Your task to perform on an android device: Open Google Image 0: 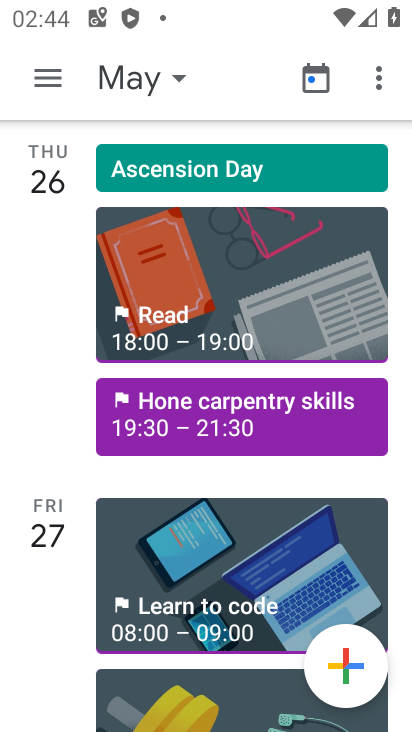
Step 0: press home button
Your task to perform on an android device: Open Google Image 1: 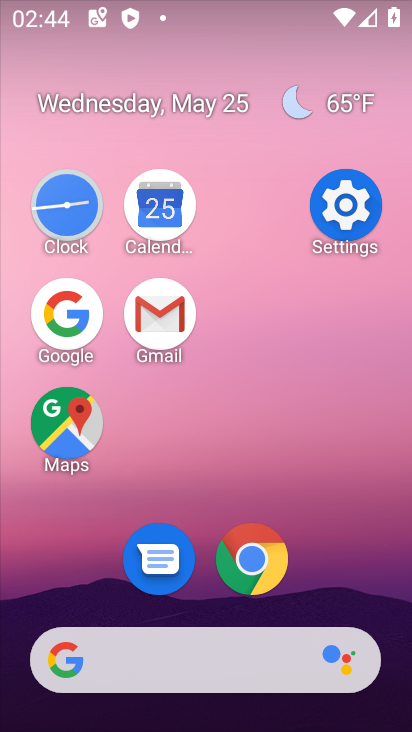
Step 1: click (83, 321)
Your task to perform on an android device: Open Google Image 2: 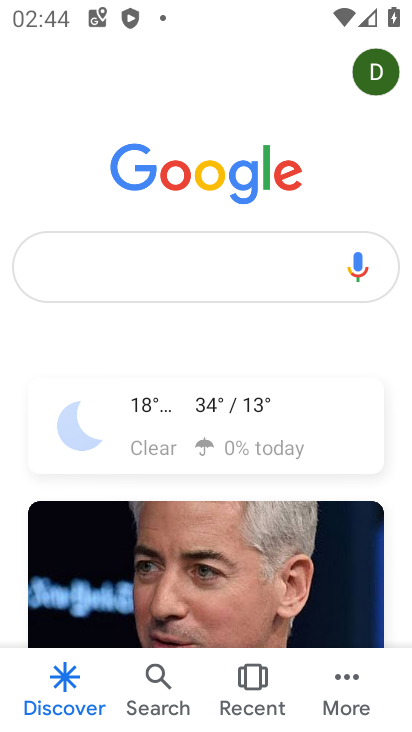
Step 2: task complete